Your task to perform on an android device: Open eBay Image 0: 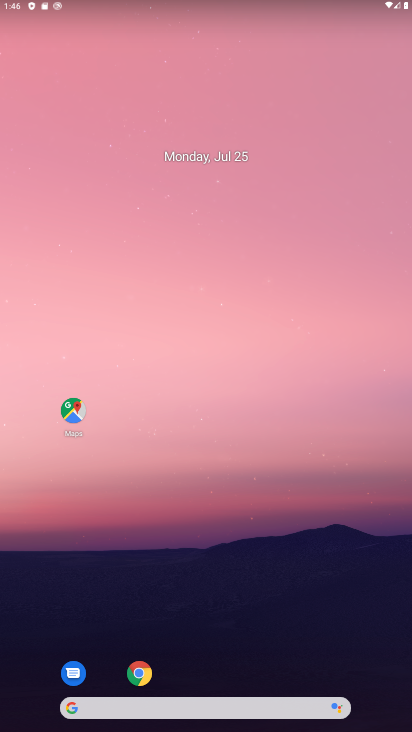
Step 0: click (125, 704)
Your task to perform on an android device: Open eBay Image 1: 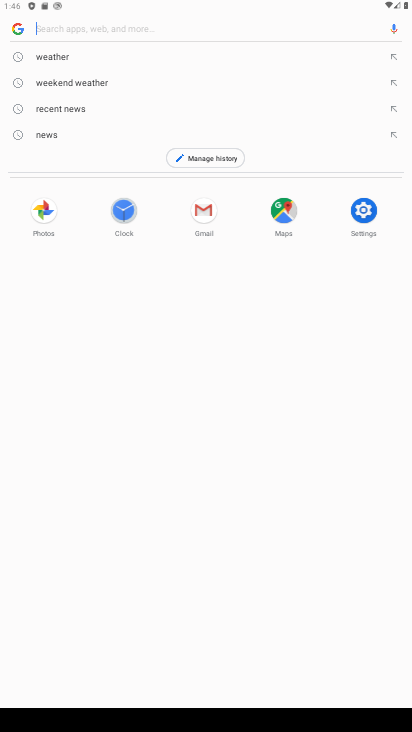
Step 1: type "ebay"
Your task to perform on an android device: Open eBay Image 2: 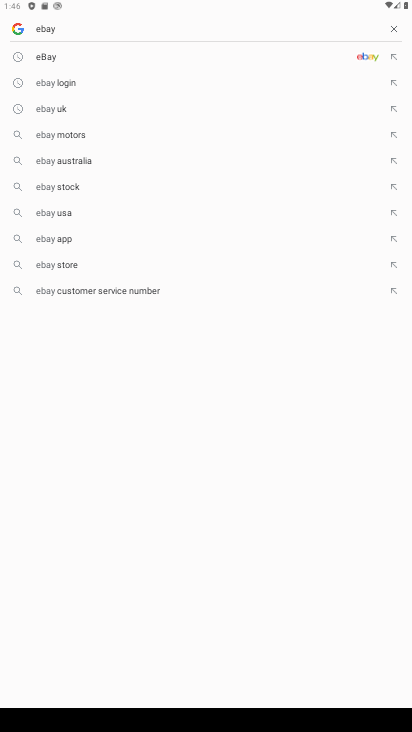
Step 2: click (72, 60)
Your task to perform on an android device: Open eBay Image 3: 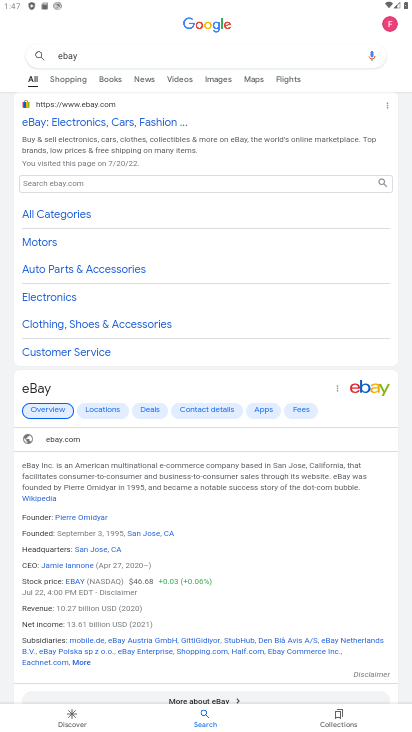
Step 3: task complete